Your task to perform on an android device: turn notification dots on Image 0: 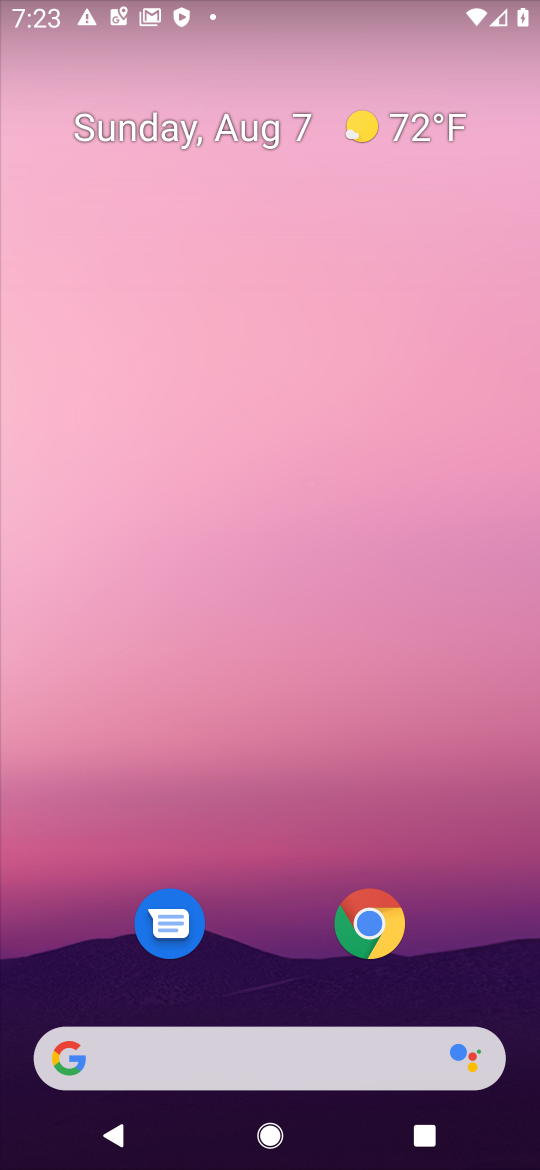
Step 0: drag from (491, 954) to (341, 107)
Your task to perform on an android device: turn notification dots on Image 1: 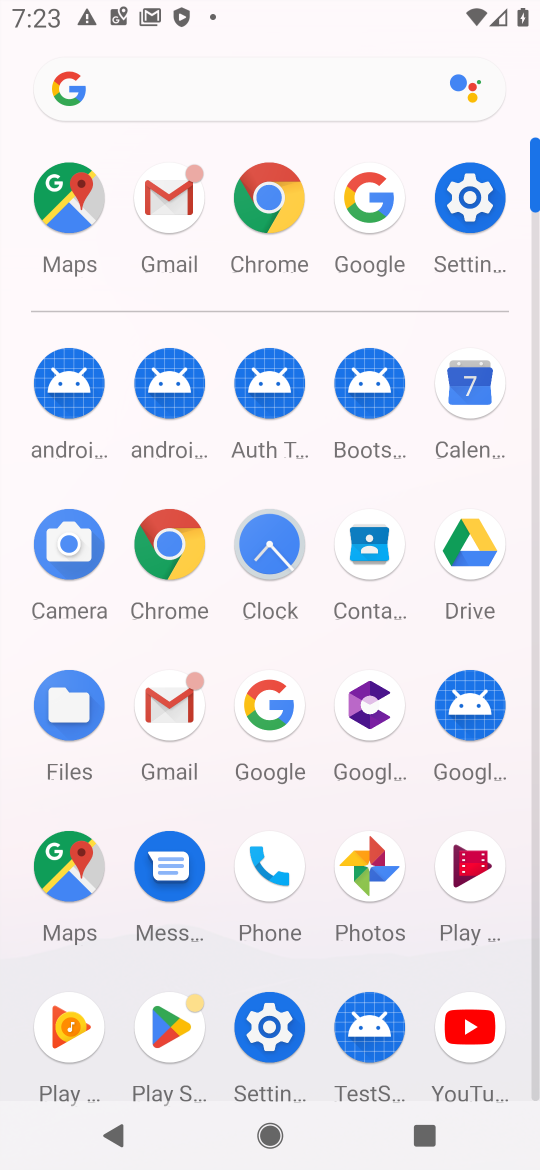
Step 1: click (471, 207)
Your task to perform on an android device: turn notification dots on Image 2: 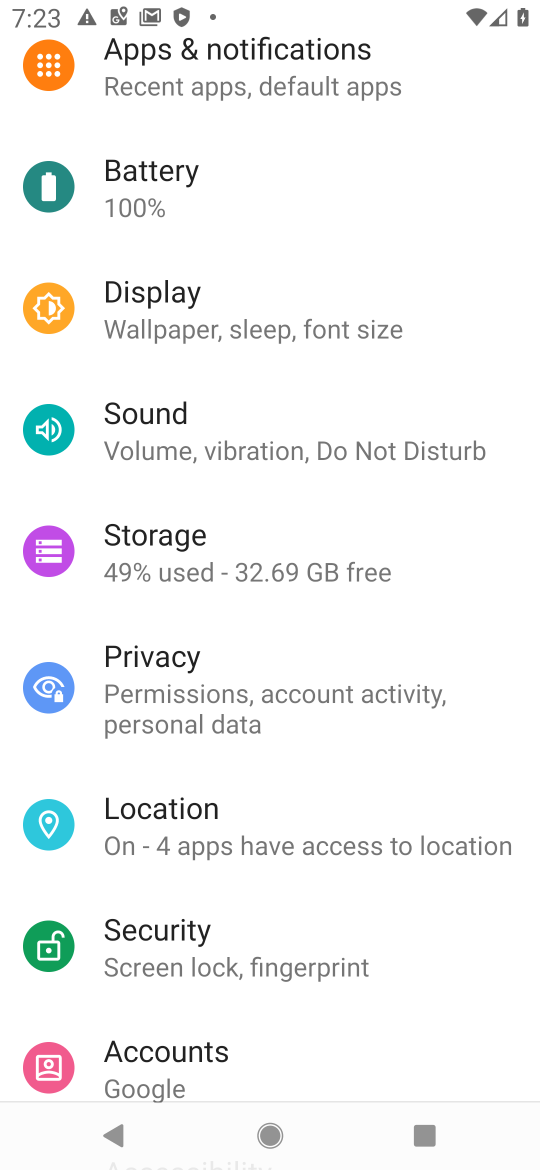
Step 2: drag from (276, 212) to (262, 1152)
Your task to perform on an android device: turn notification dots on Image 3: 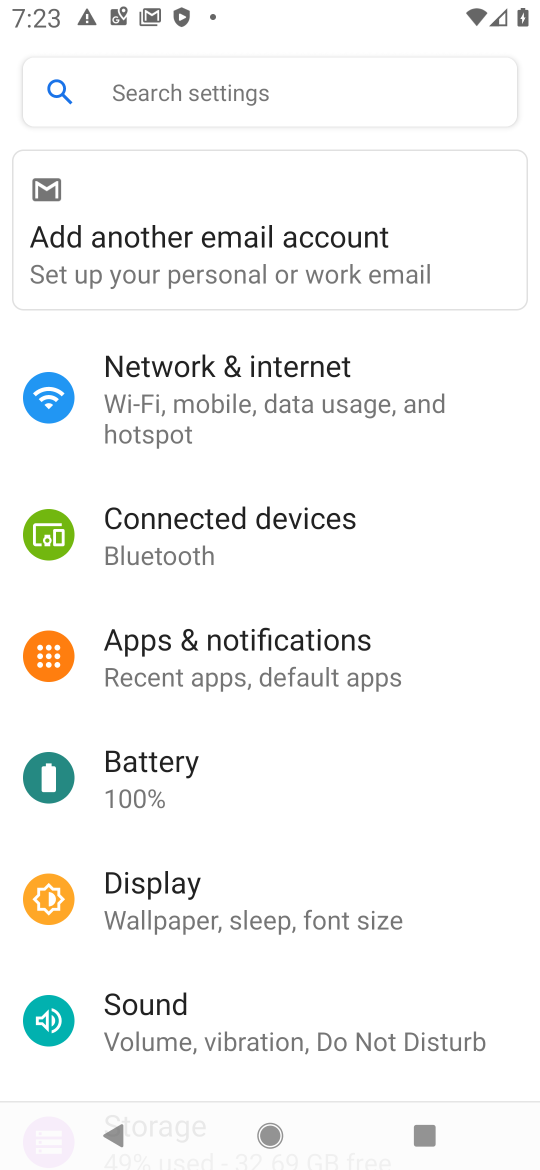
Step 3: click (245, 664)
Your task to perform on an android device: turn notification dots on Image 4: 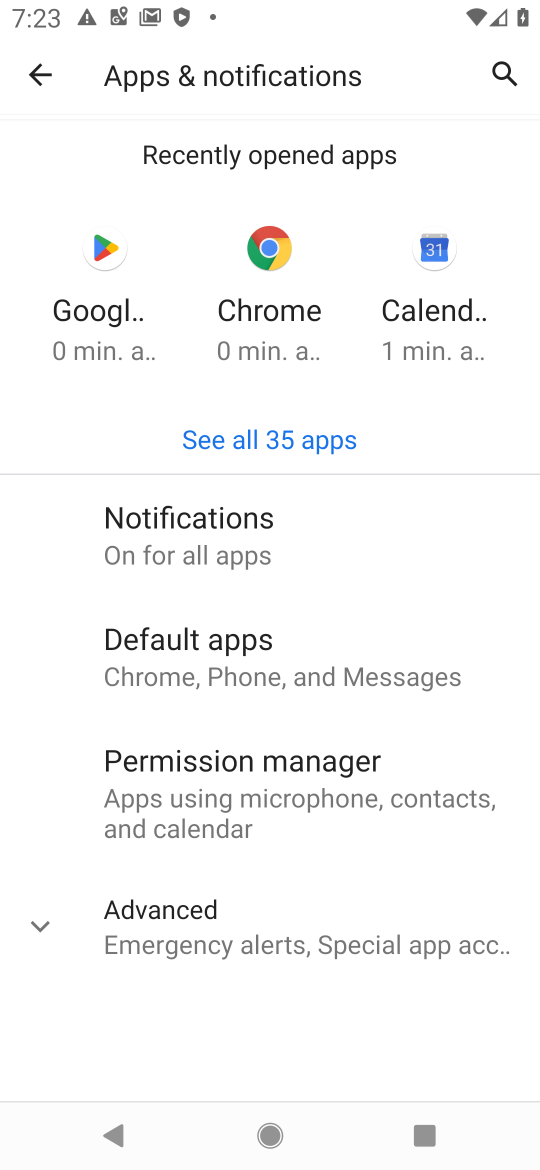
Step 4: click (202, 541)
Your task to perform on an android device: turn notification dots on Image 5: 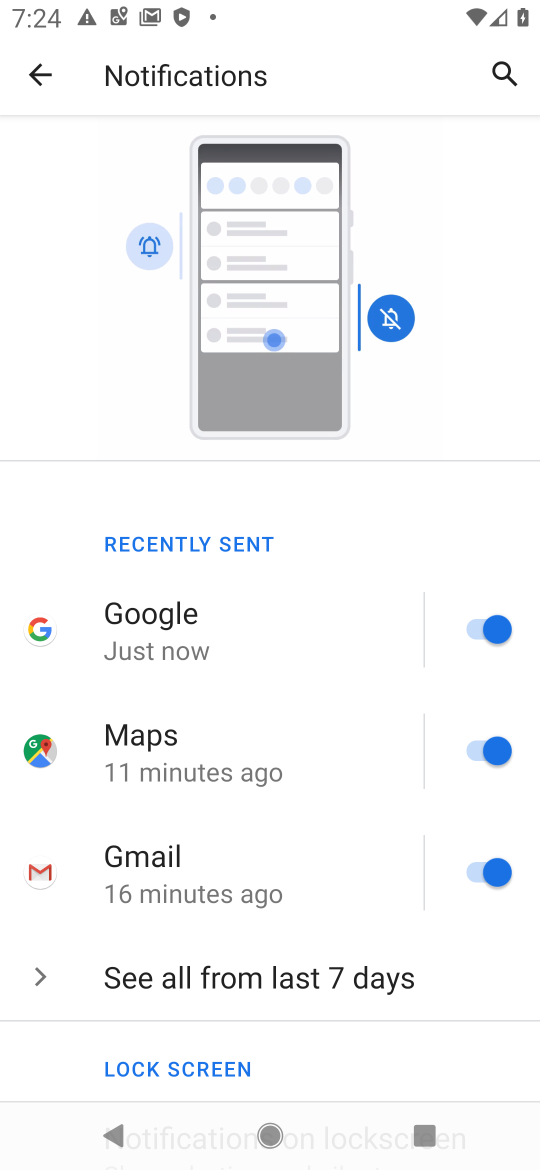
Step 5: drag from (287, 977) to (376, 282)
Your task to perform on an android device: turn notification dots on Image 6: 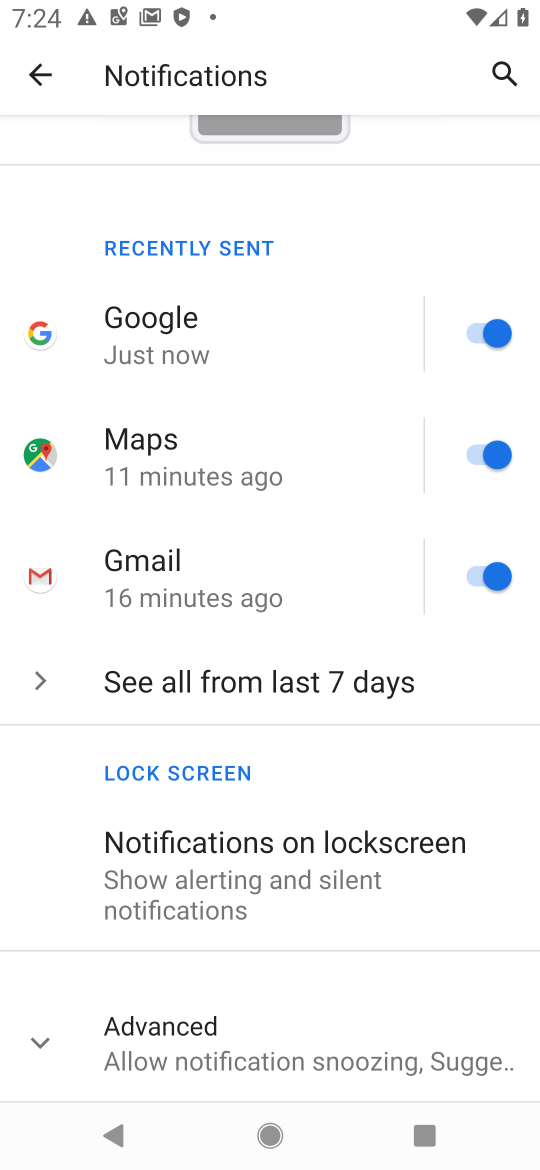
Step 6: click (182, 1020)
Your task to perform on an android device: turn notification dots on Image 7: 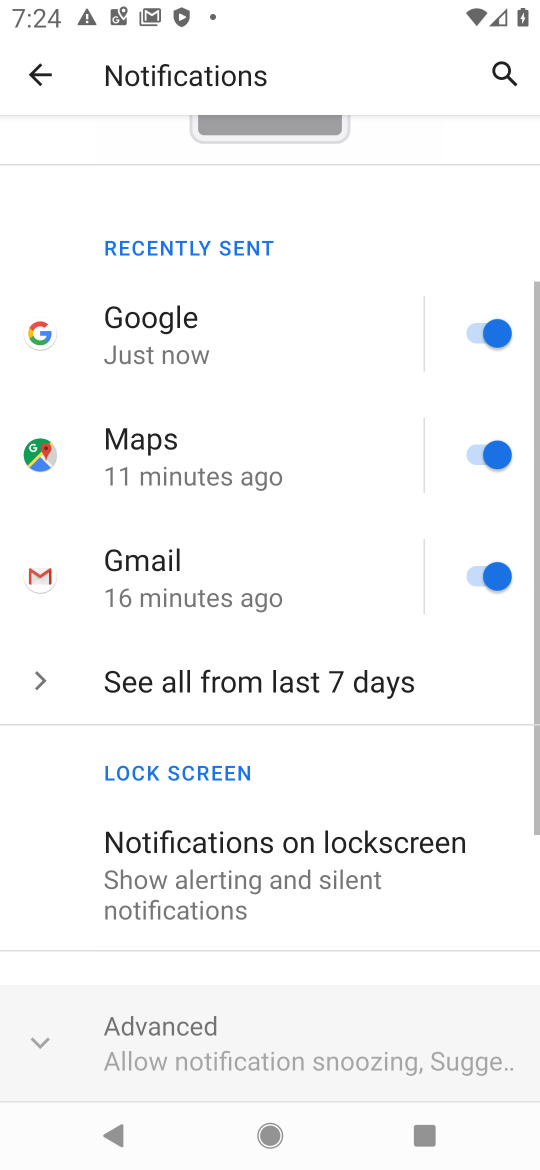
Step 7: task complete